Your task to perform on an android device: Show me the alarms in the clock app Image 0: 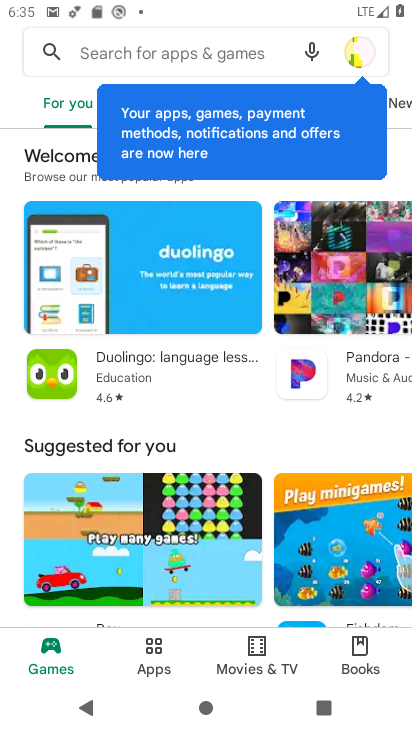
Step 0: press back button
Your task to perform on an android device: Show me the alarms in the clock app Image 1: 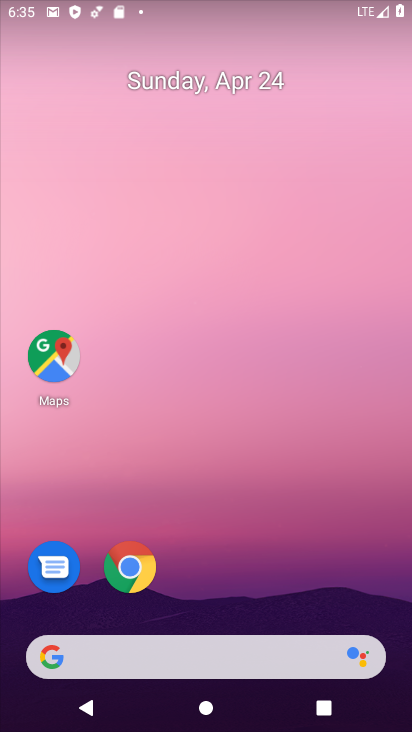
Step 1: drag from (276, 583) to (234, 54)
Your task to perform on an android device: Show me the alarms in the clock app Image 2: 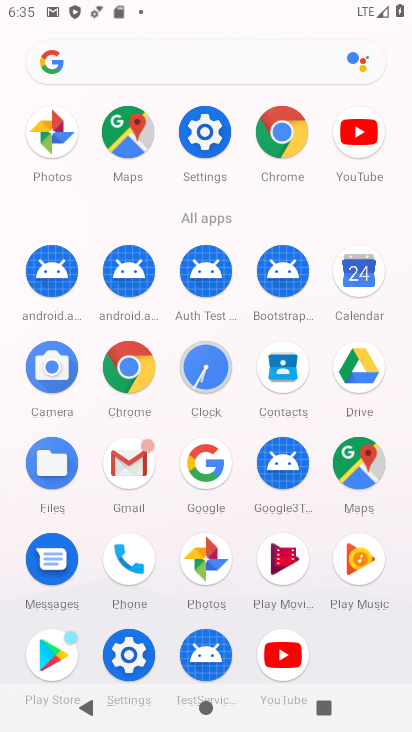
Step 2: click (197, 372)
Your task to perform on an android device: Show me the alarms in the clock app Image 3: 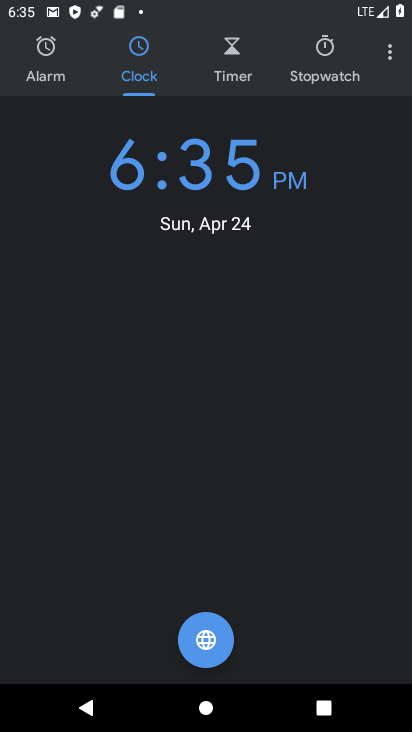
Step 3: click (46, 57)
Your task to perform on an android device: Show me the alarms in the clock app Image 4: 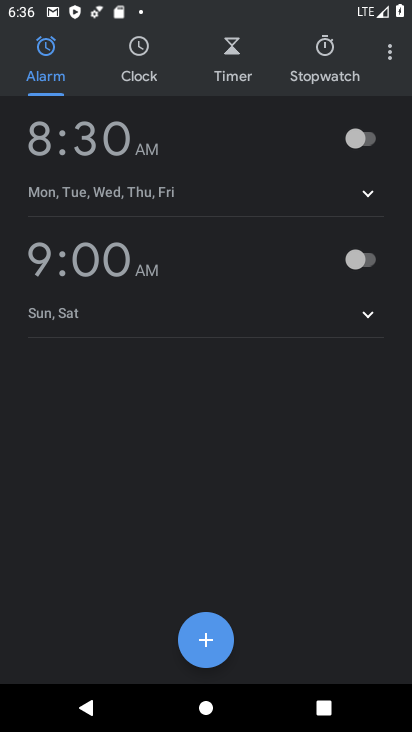
Step 4: task complete